Your task to perform on an android device: turn off smart reply in the gmail app Image 0: 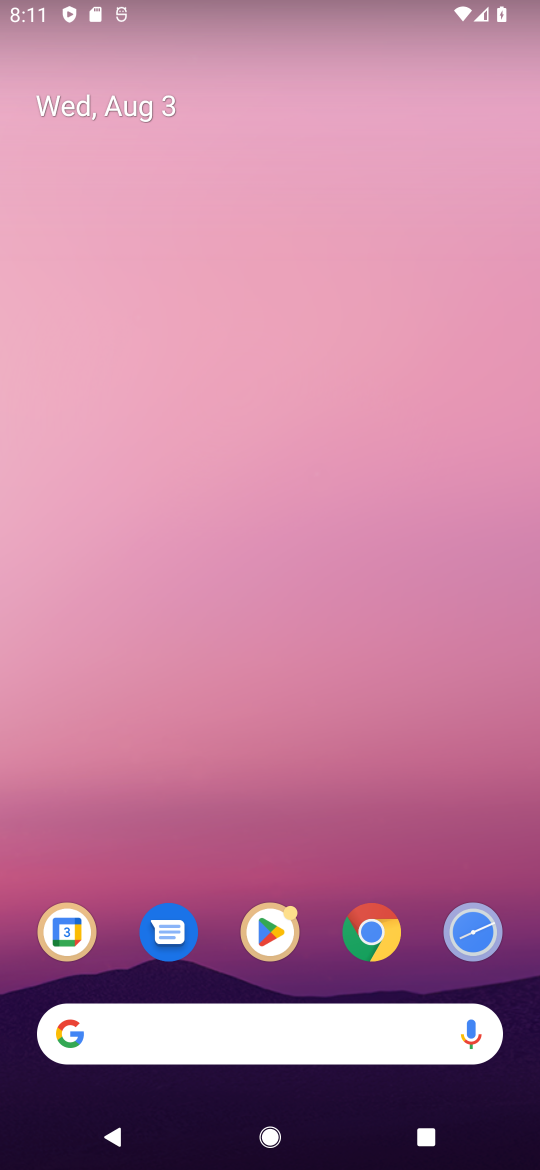
Step 0: drag from (242, 995) to (264, 96)
Your task to perform on an android device: turn off smart reply in the gmail app Image 1: 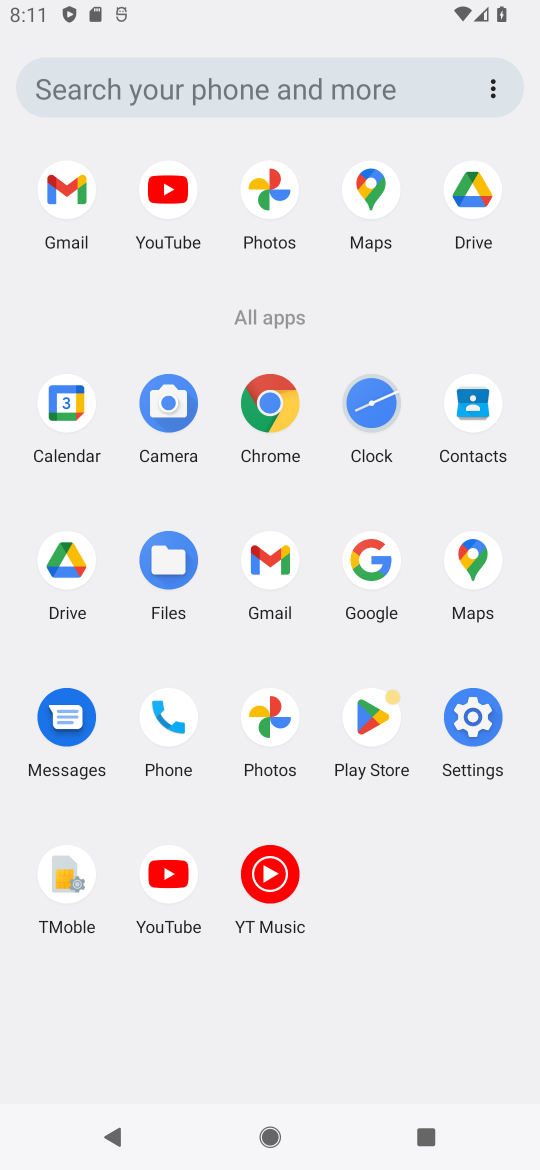
Step 1: click (272, 562)
Your task to perform on an android device: turn off smart reply in the gmail app Image 2: 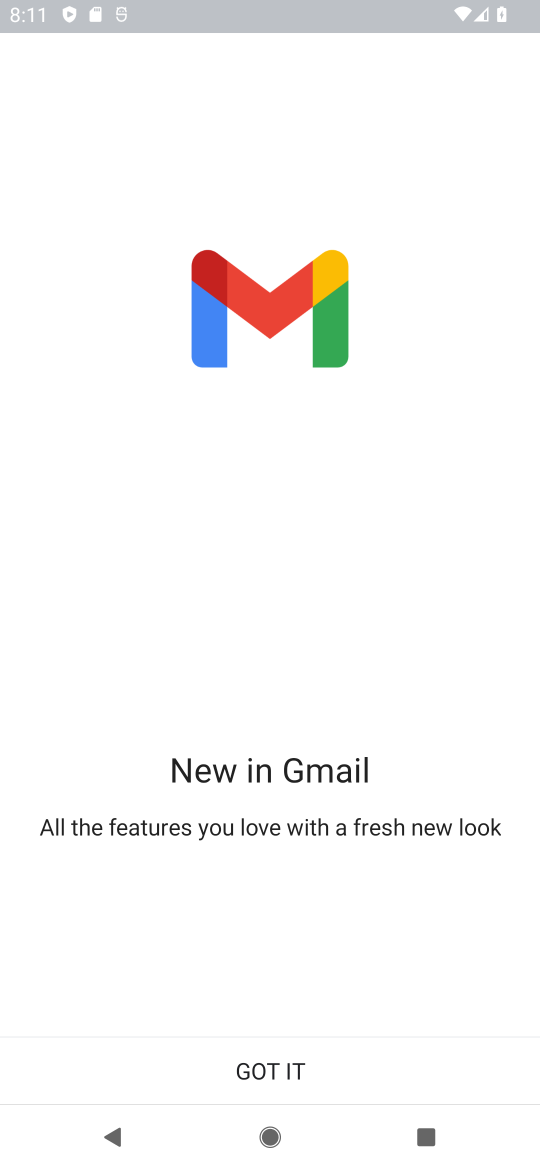
Step 2: click (245, 1066)
Your task to perform on an android device: turn off smart reply in the gmail app Image 3: 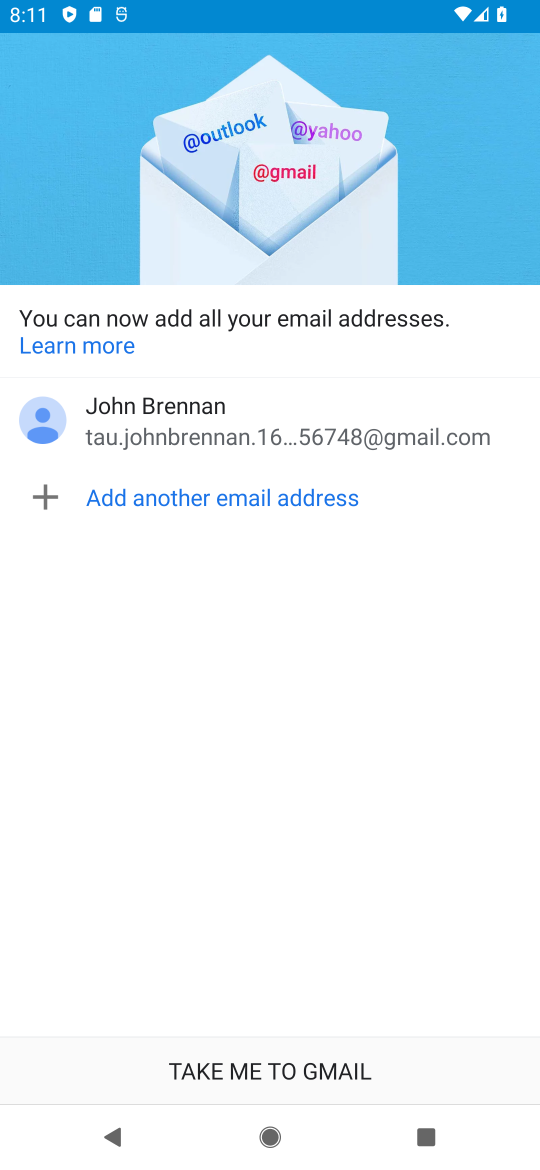
Step 3: click (245, 1066)
Your task to perform on an android device: turn off smart reply in the gmail app Image 4: 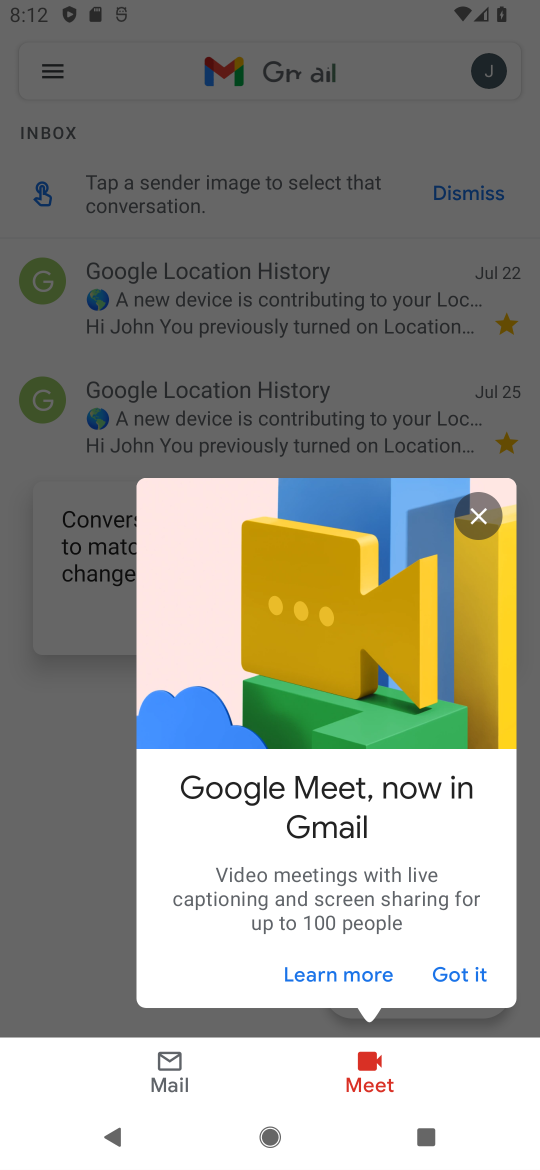
Step 4: click (485, 505)
Your task to perform on an android device: turn off smart reply in the gmail app Image 5: 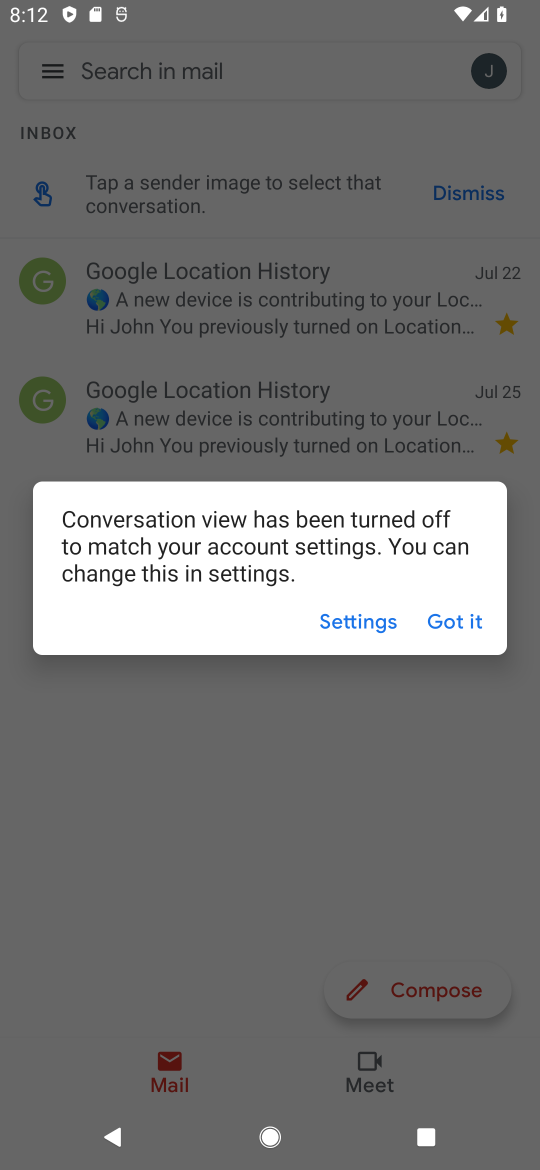
Step 5: click (44, 73)
Your task to perform on an android device: turn off smart reply in the gmail app Image 6: 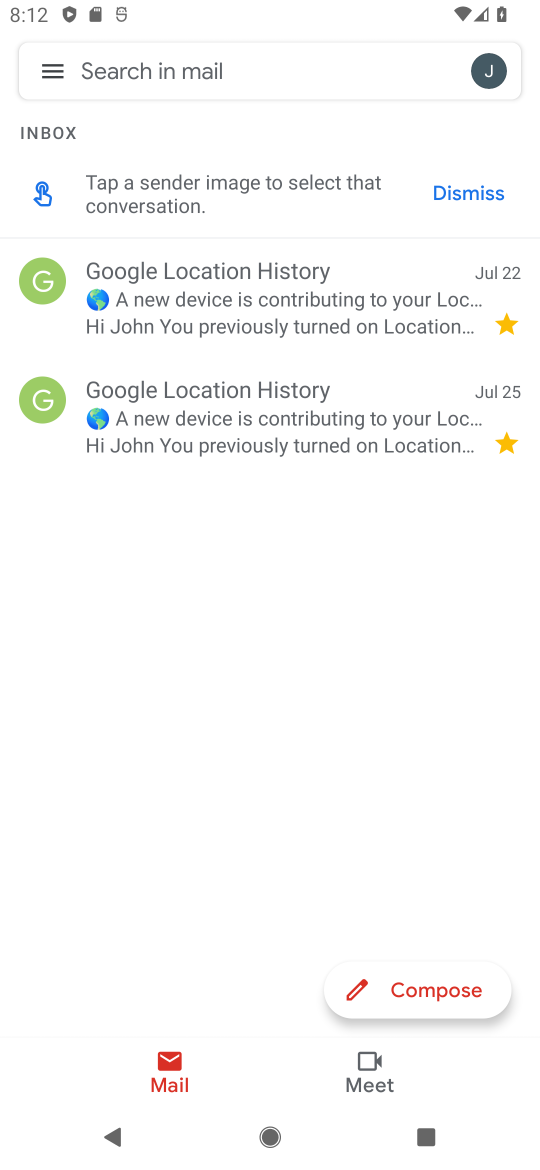
Step 6: click (62, 64)
Your task to perform on an android device: turn off smart reply in the gmail app Image 7: 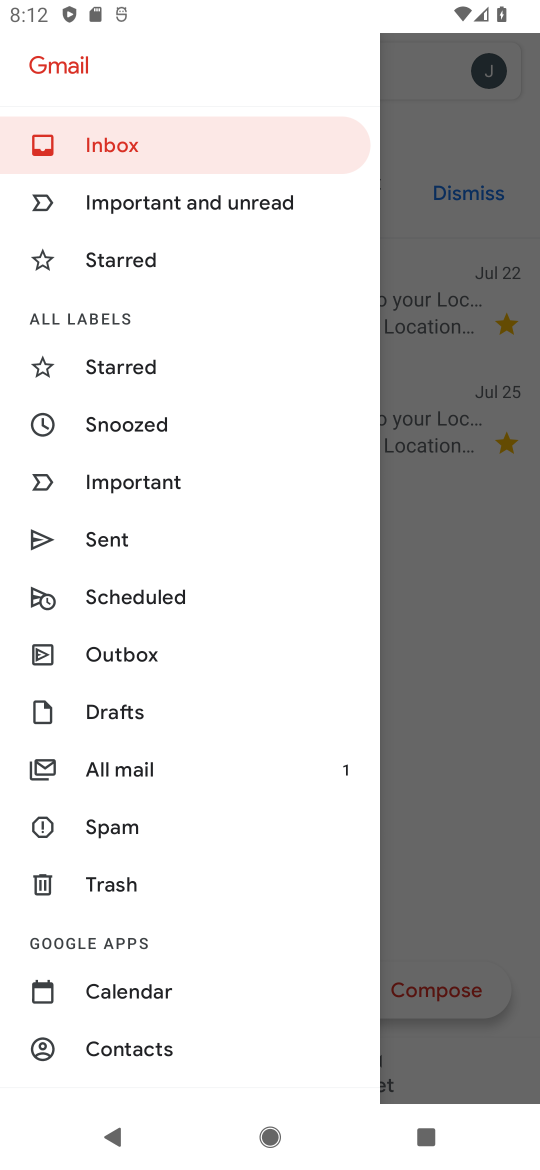
Step 7: drag from (155, 891) to (155, 413)
Your task to perform on an android device: turn off smart reply in the gmail app Image 8: 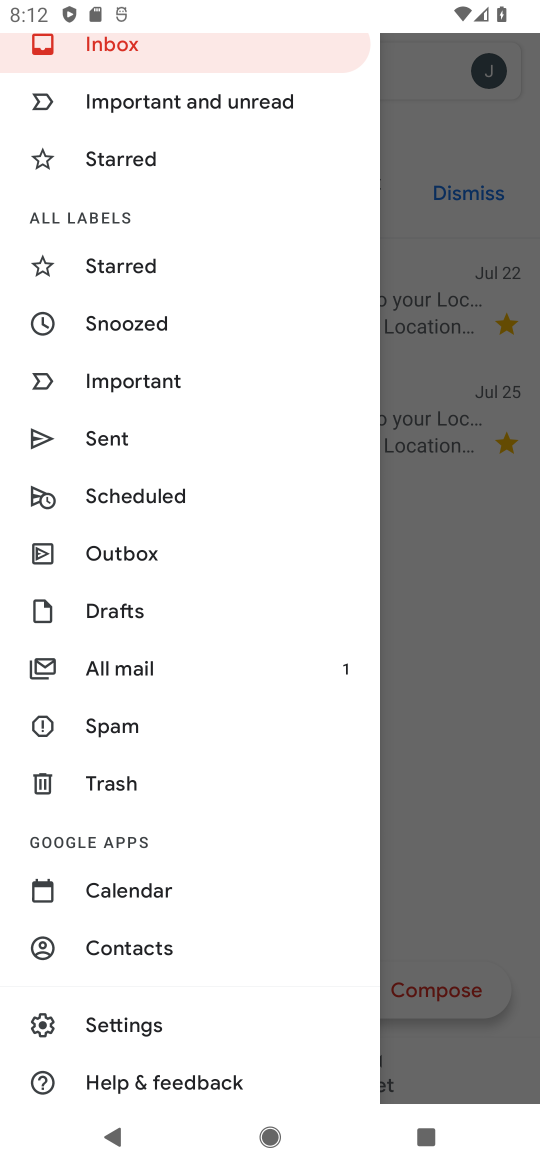
Step 8: click (128, 1027)
Your task to perform on an android device: turn off smart reply in the gmail app Image 9: 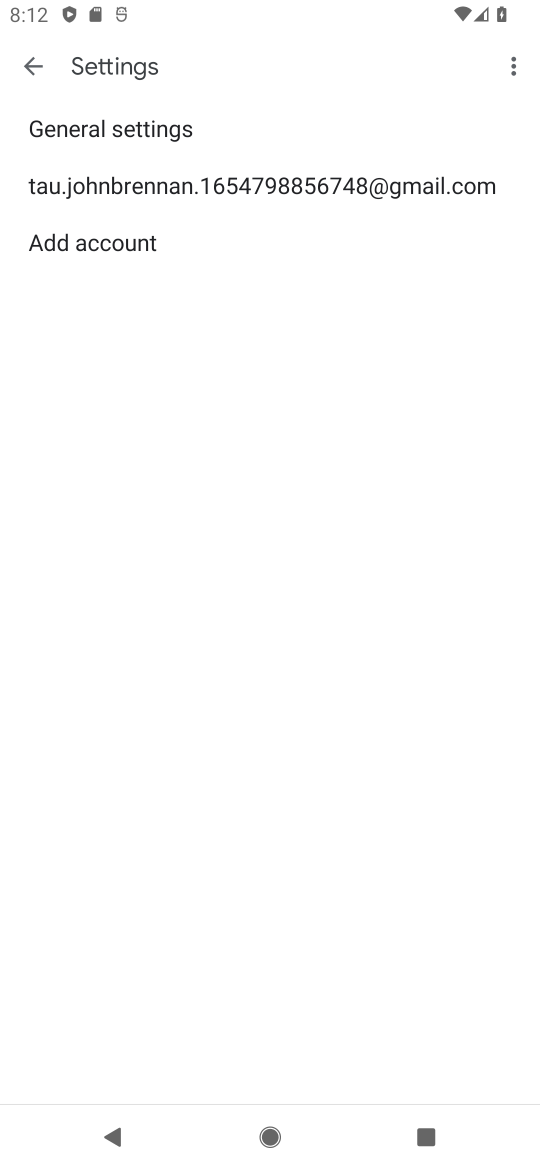
Step 9: click (125, 185)
Your task to perform on an android device: turn off smart reply in the gmail app Image 10: 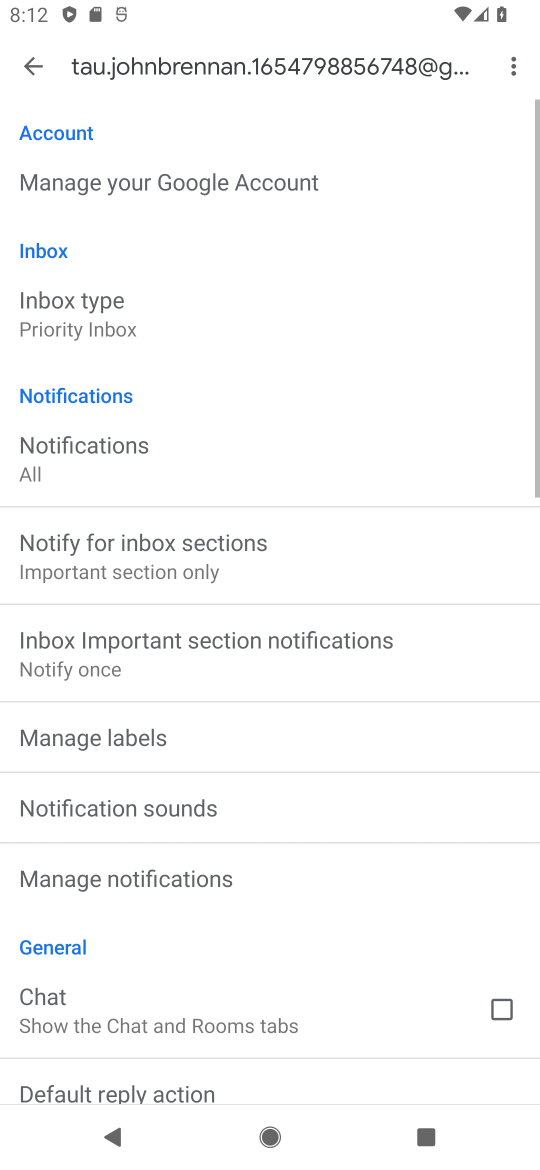
Step 10: drag from (141, 1042) to (166, 321)
Your task to perform on an android device: turn off smart reply in the gmail app Image 11: 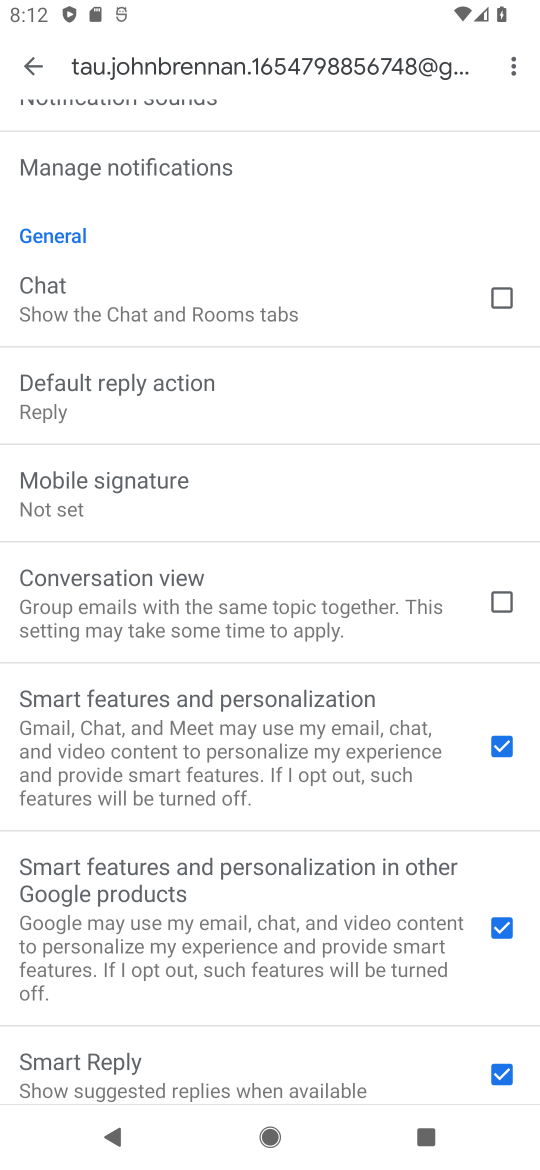
Step 11: drag from (76, 1061) to (84, 503)
Your task to perform on an android device: turn off smart reply in the gmail app Image 12: 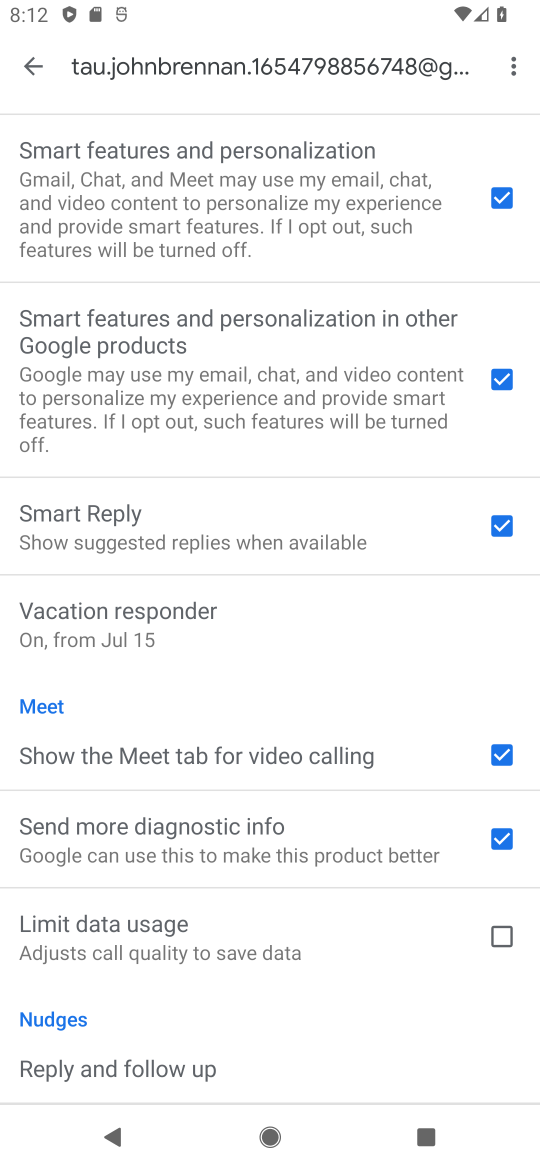
Step 12: click (505, 520)
Your task to perform on an android device: turn off smart reply in the gmail app Image 13: 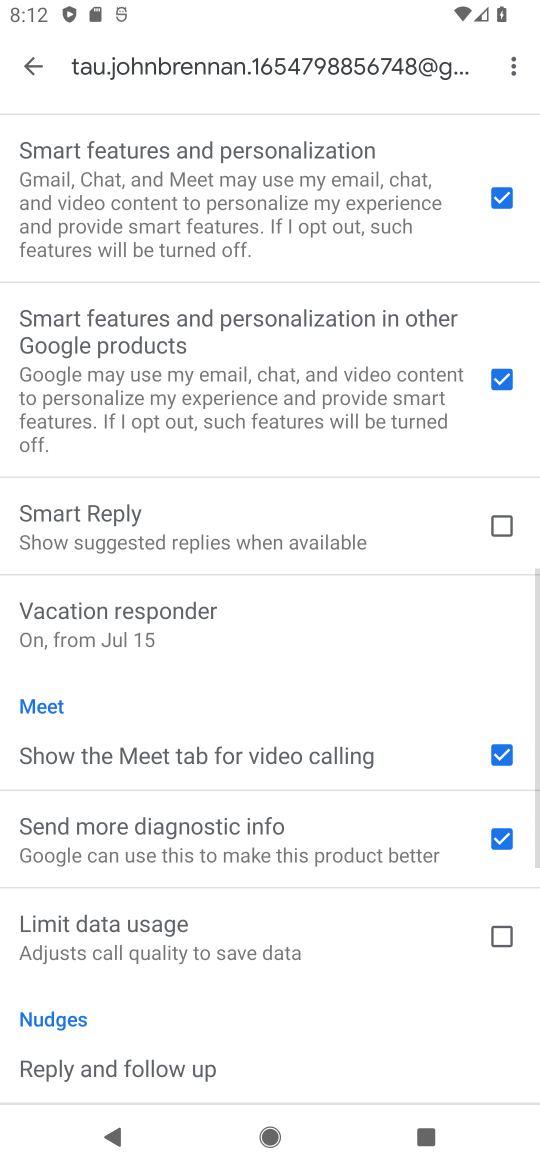
Step 13: task complete